Your task to perform on an android device: Open the map Image 0: 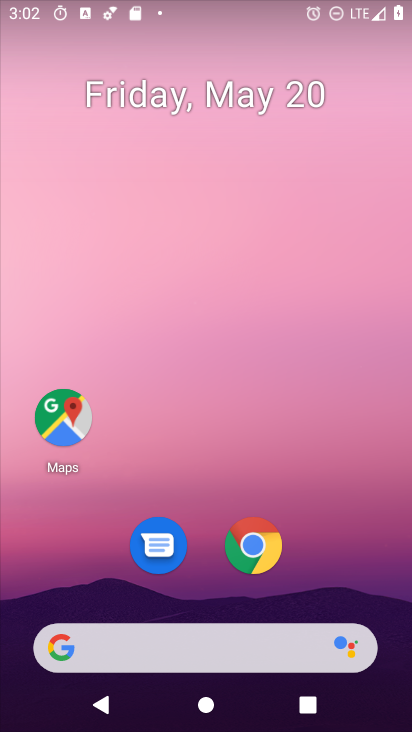
Step 0: drag from (326, 654) to (356, 10)
Your task to perform on an android device: Open the map Image 1: 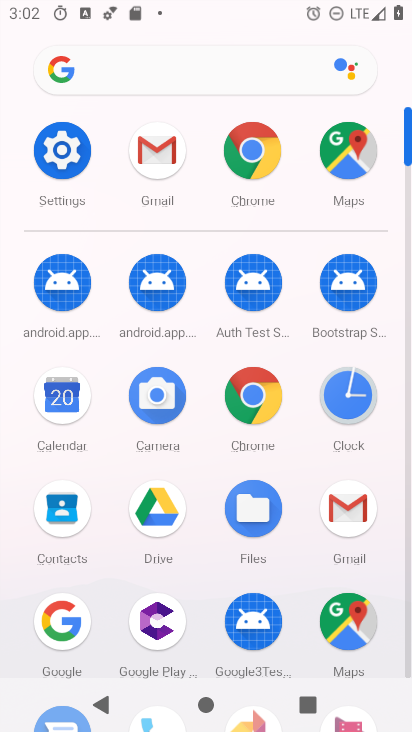
Step 1: click (342, 624)
Your task to perform on an android device: Open the map Image 2: 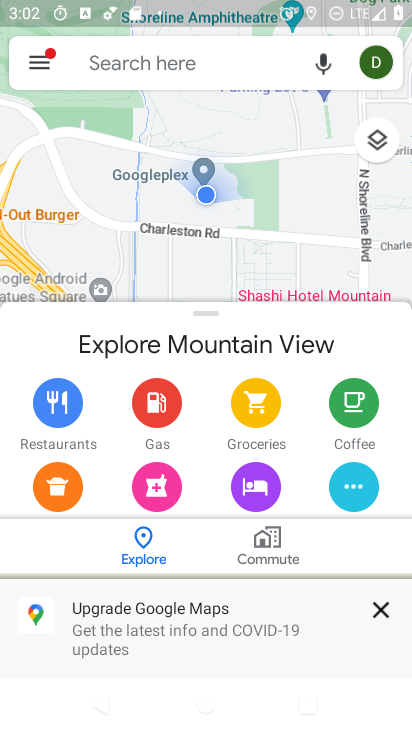
Step 2: press back button
Your task to perform on an android device: Open the map Image 3: 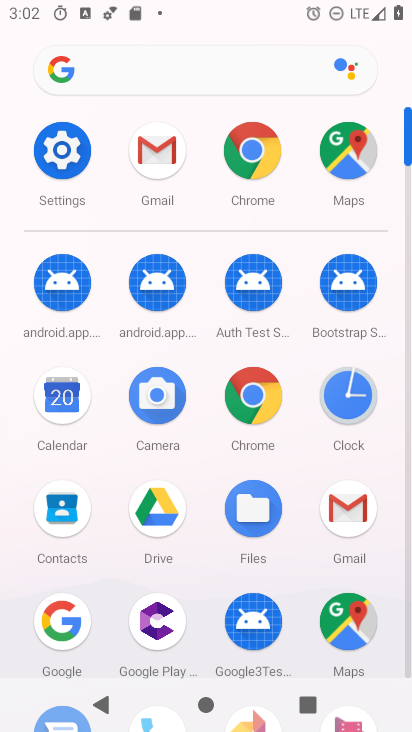
Step 3: click (345, 627)
Your task to perform on an android device: Open the map Image 4: 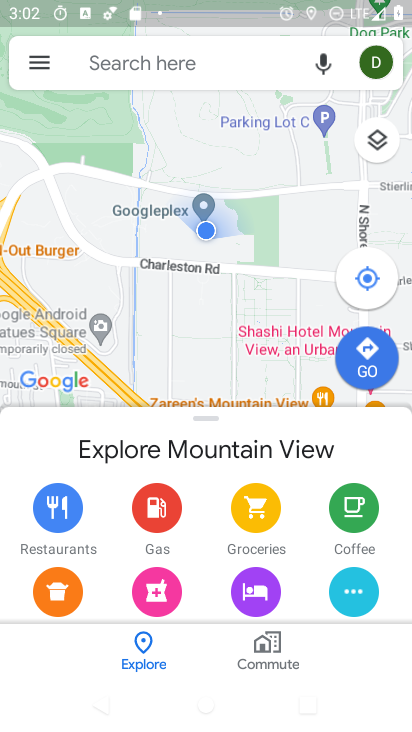
Step 4: task complete